Your task to perform on an android device: What's the weather going to be tomorrow? Image 0: 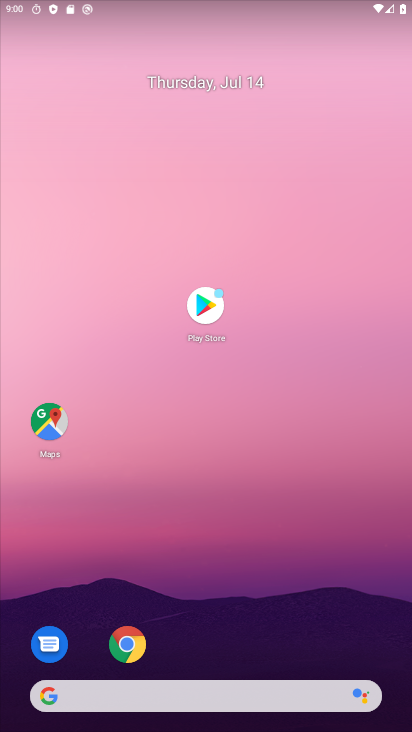
Step 0: drag from (185, 212) to (197, 115)
Your task to perform on an android device: What's the weather going to be tomorrow? Image 1: 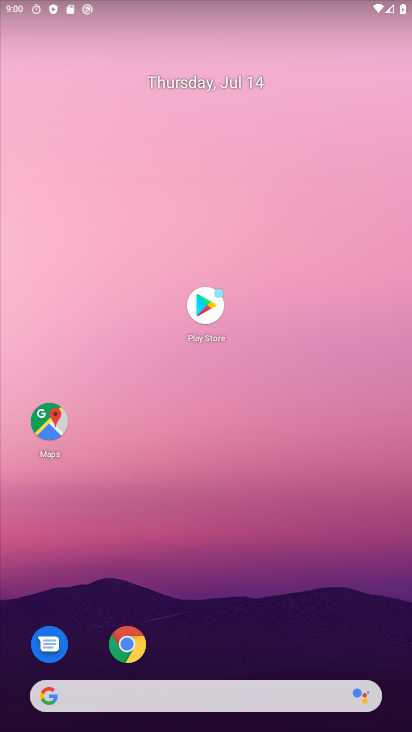
Step 1: drag from (220, 651) to (254, 49)
Your task to perform on an android device: What's the weather going to be tomorrow? Image 2: 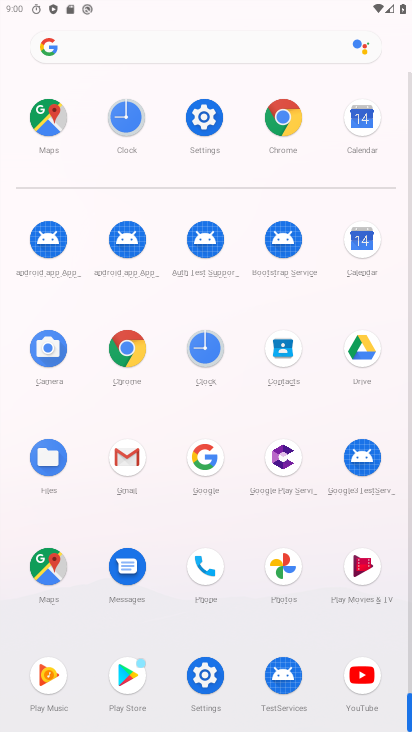
Step 2: click (125, 42)
Your task to perform on an android device: What's the weather going to be tomorrow? Image 3: 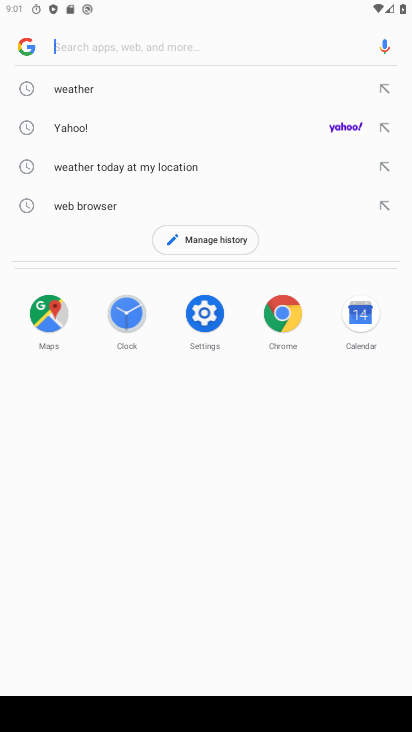
Step 3: type "What's the weather going to be tomorrow?"
Your task to perform on an android device: What's the weather going to be tomorrow? Image 4: 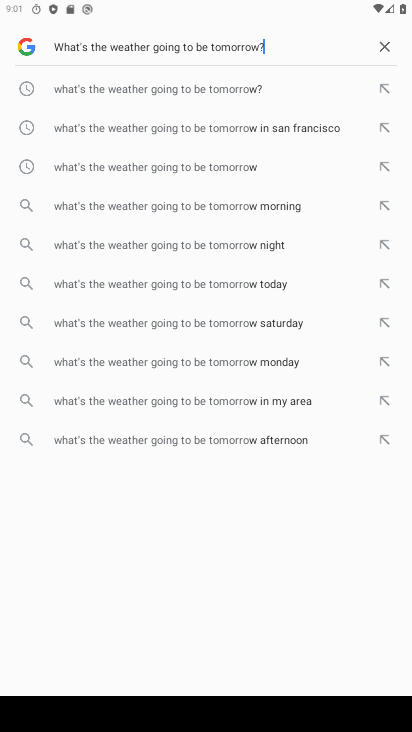
Step 4: type ""
Your task to perform on an android device: What's the weather going to be tomorrow? Image 5: 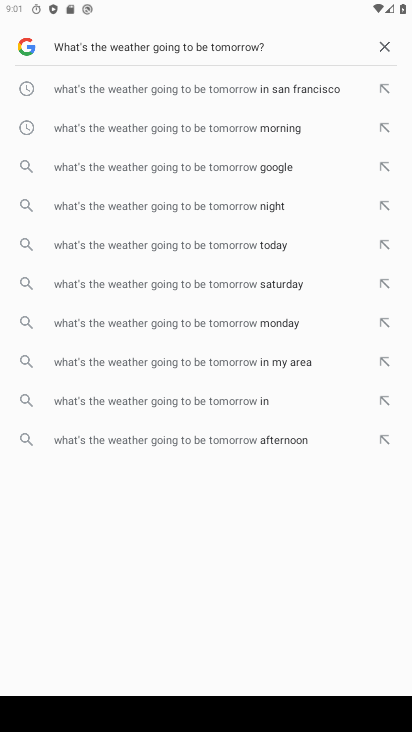
Step 5: click (171, 158)
Your task to perform on an android device: What's the weather going to be tomorrow? Image 6: 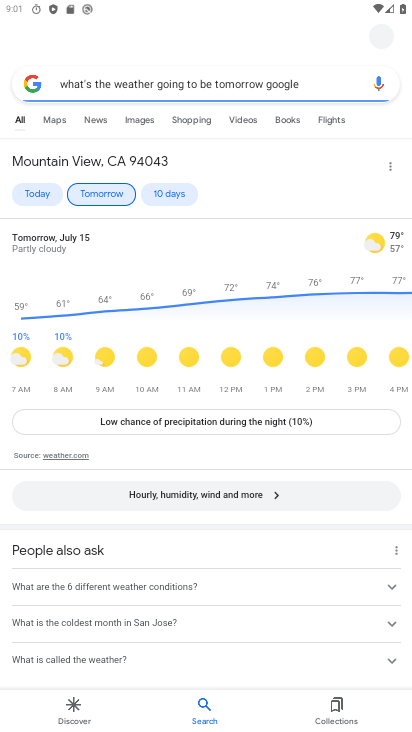
Step 6: task complete